Your task to perform on an android device: check data usage Image 0: 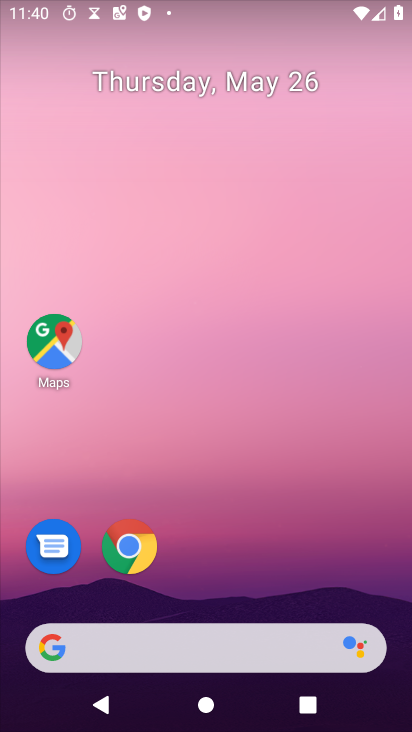
Step 0: drag from (376, 588) to (385, 140)
Your task to perform on an android device: check data usage Image 1: 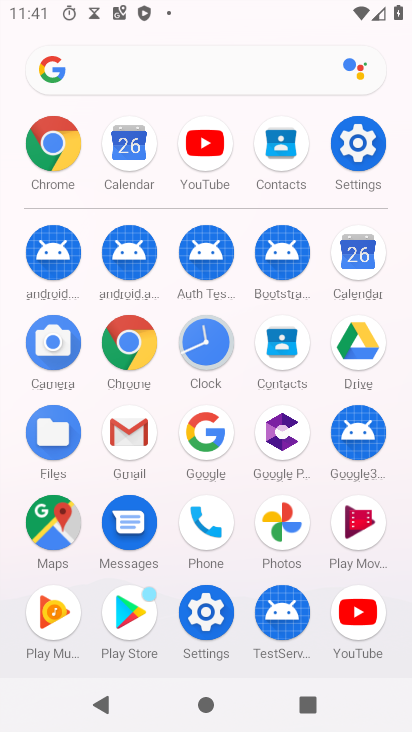
Step 1: click (199, 605)
Your task to perform on an android device: check data usage Image 2: 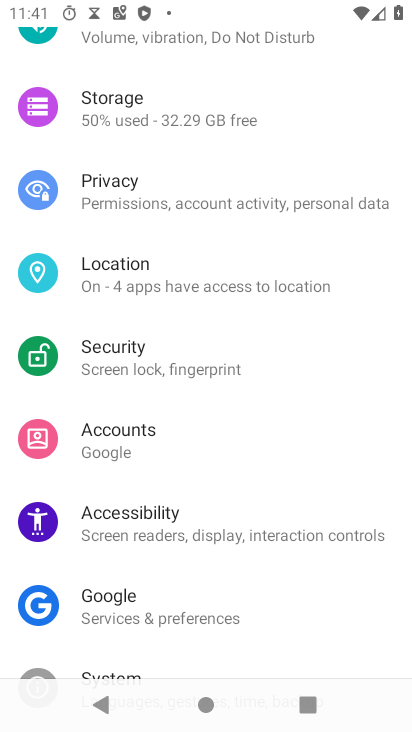
Step 2: drag from (210, 252) to (232, 539)
Your task to perform on an android device: check data usage Image 3: 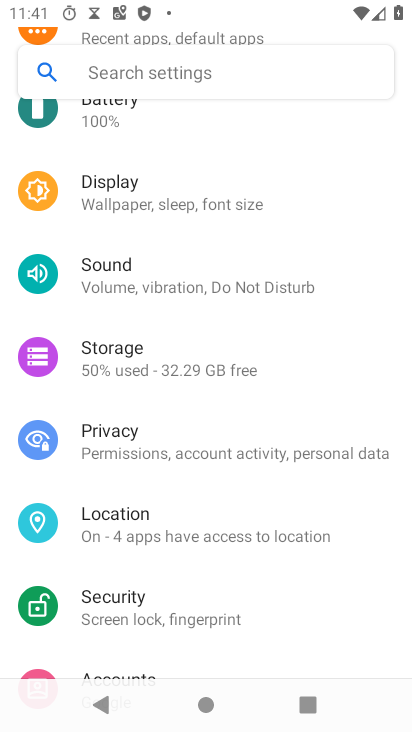
Step 3: drag from (214, 232) to (211, 510)
Your task to perform on an android device: check data usage Image 4: 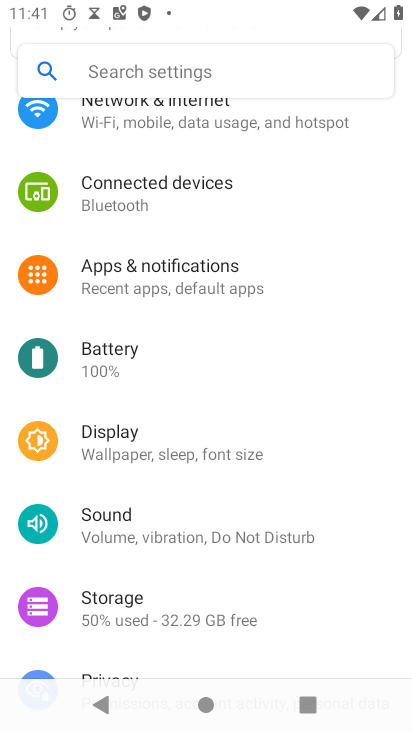
Step 4: drag from (237, 589) to (241, 315)
Your task to perform on an android device: check data usage Image 5: 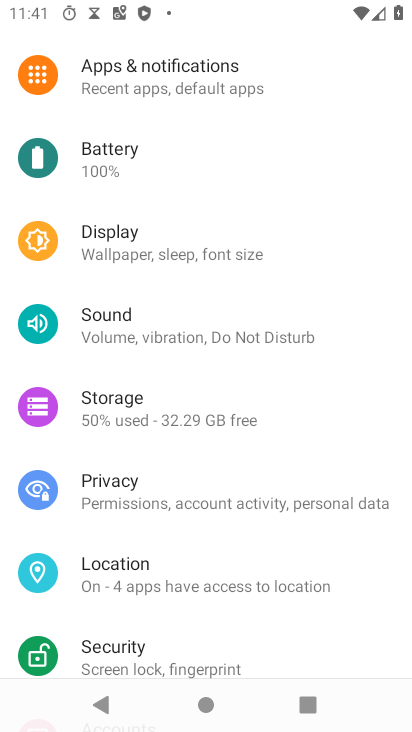
Step 5: drag from (212, 109) to (258, 566)
Your task to perform on an android device: check data usage Image 6: 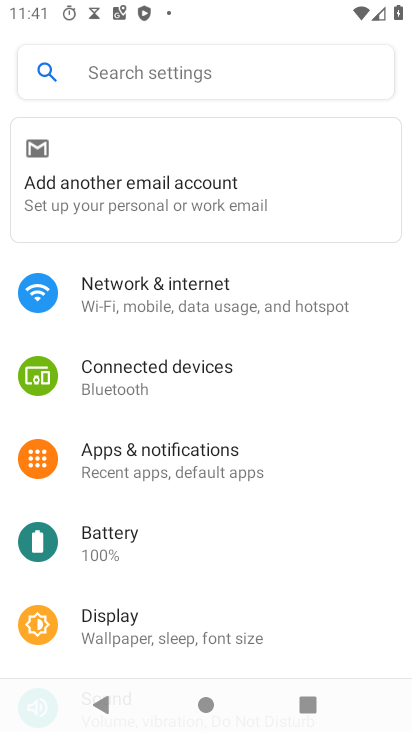
Step 6: click (181, 297)
Your task to perform on an android device: check data usage Image 7: 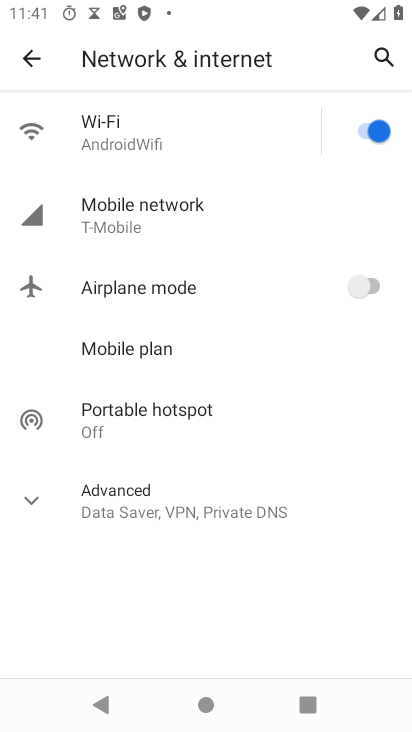
Step 7: click (139, 506)
Your task to perform on an android device: check data usage Image 8: 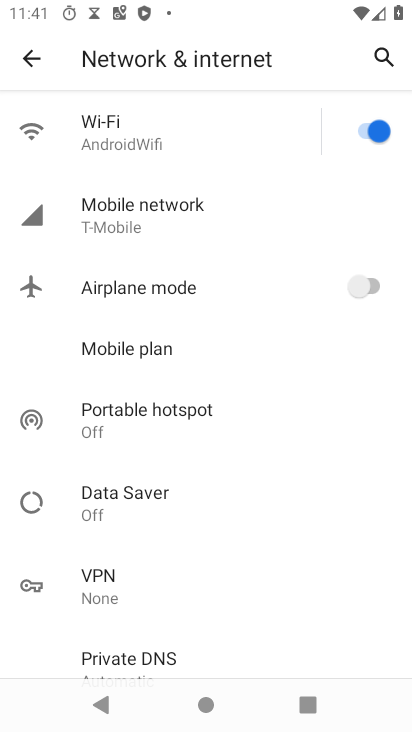
Step 8: click (189, 200)
Your task to perform on an android device: check data usage Image 9: 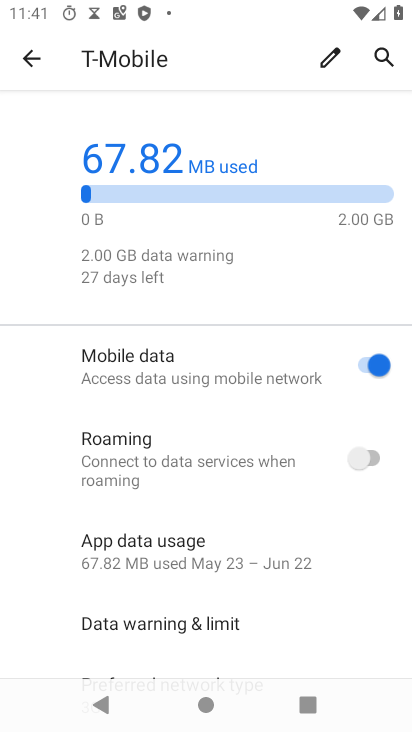
Step 9: task complete